Your task to perform on an android device: set an alarm Image 0: 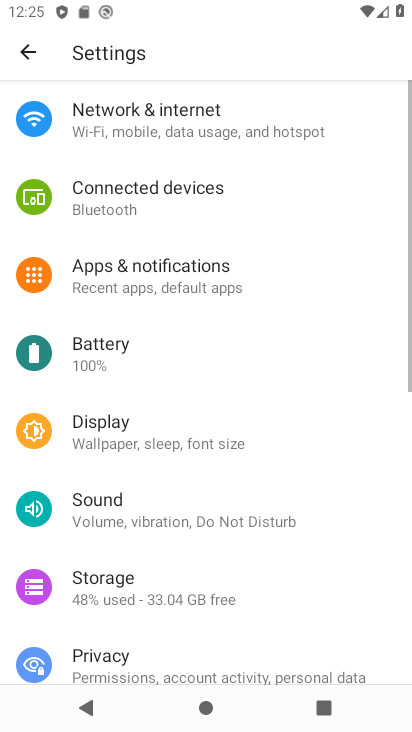
Step 0: press home button
Your task to perform on an android device: set an alarm Image 1: 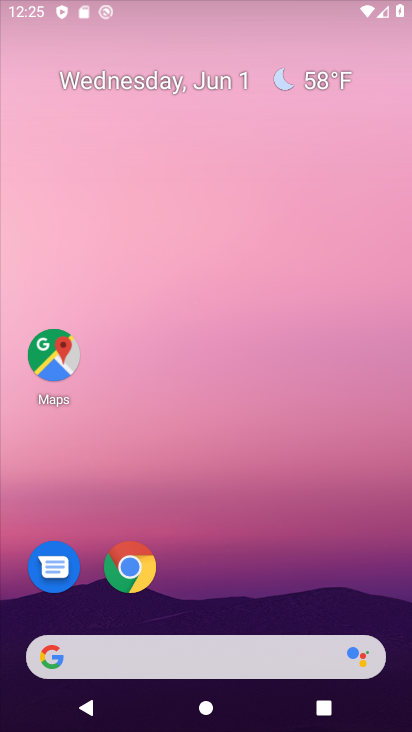
Step 1: drag from (212, 545) to (285, 58)
Your task to perform on an android device: set an alarm Image 2: 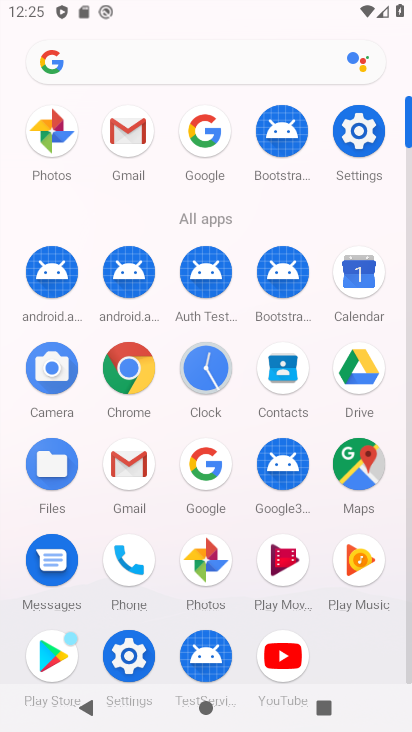
Step 2: click (219, 367)
Your task to perform on an android device: set an alarm Image 3: 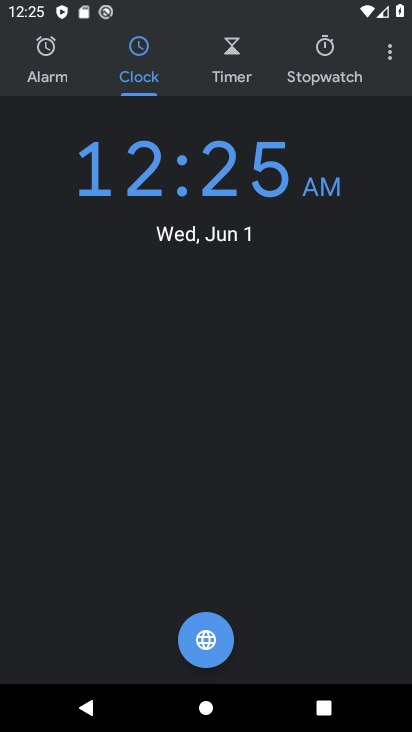
Step 3: click (52, 67)
Your task to perform on an android device: set an alarm Image 4: 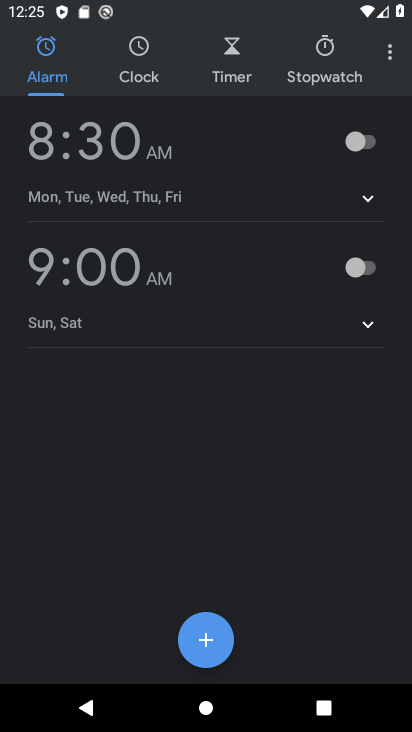
Step 4: click (345, 139)
Your task to perform on an android device: set an alarm Image 5: 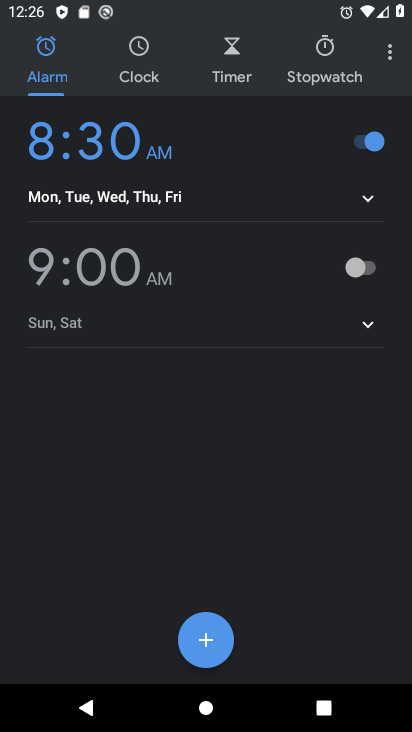
Step 5: task complete